Your task to perform on an android device: turn on bluetooth scan Image 0: 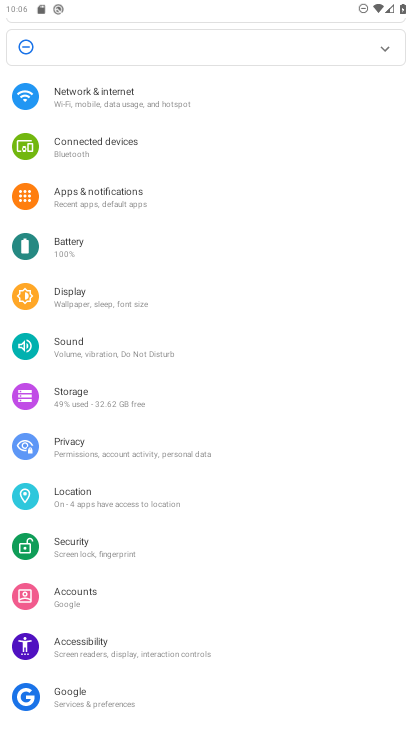
Step 0: click (111, 497)
Your task to perform on an android device: turn on bluetooth scan Image 1: 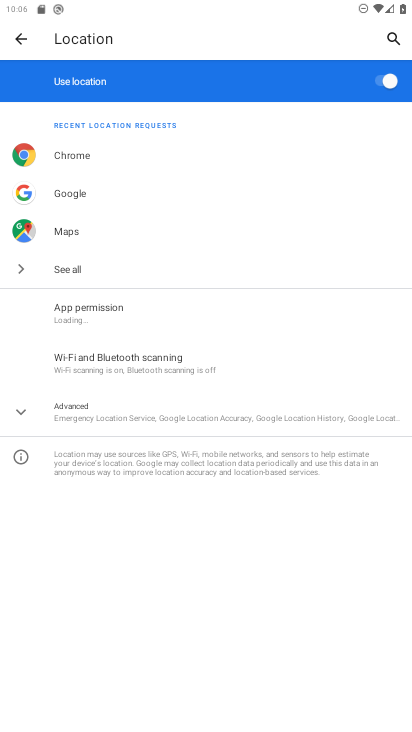
Step 1: click (149, 376)
Your task to perform on an android device: turn on bluetooth scan Image 2: 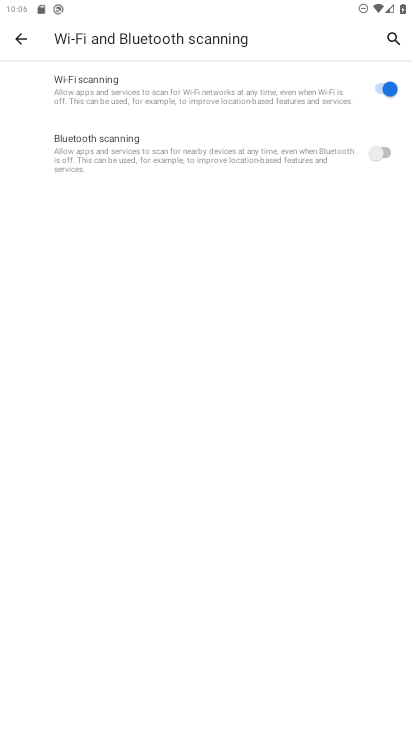
Step 2: click (382, 148)
Your task to perform on an android device: turn on bluetooth scan Image 3: 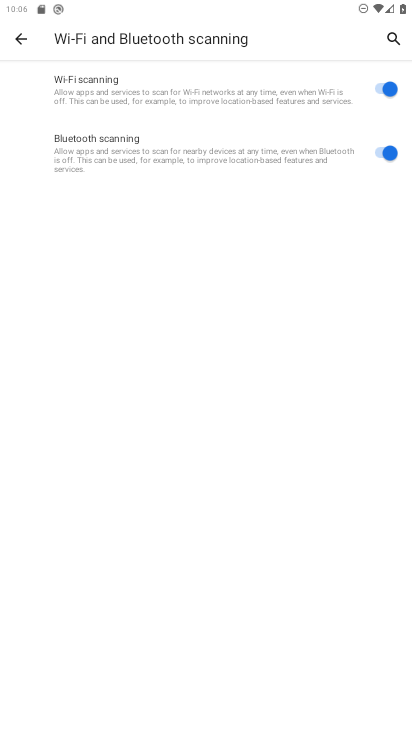
Step 3: task complete